Your task to perform on an android device: Do I have any events tomorrow? Image 0: 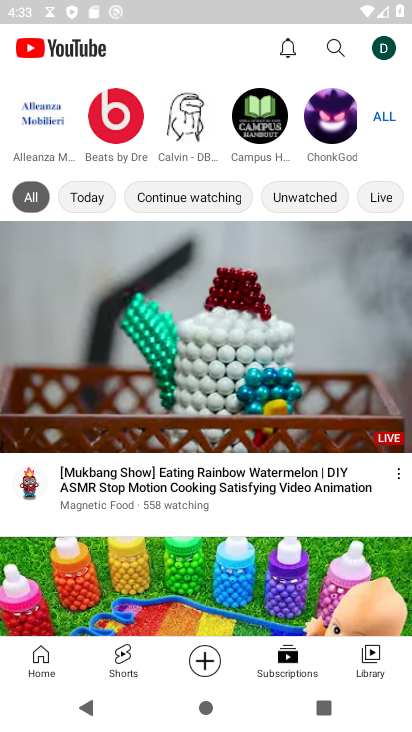
Step 0: press home button
Your task to perform on an android device: Do I have any events tomorrow? Image 1: 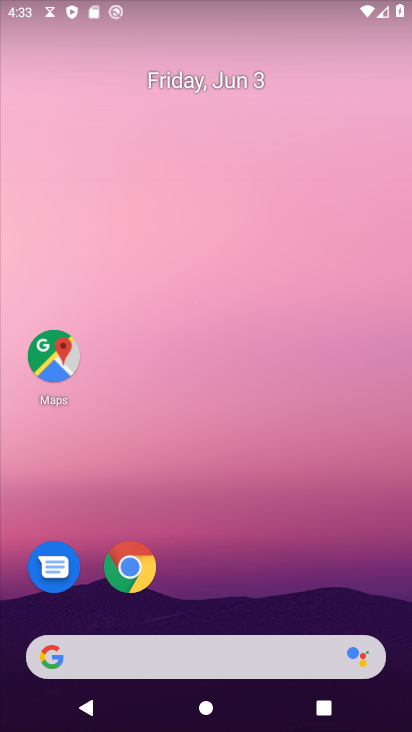
Step 1: drag from (228, 561) to (167, 51)
Your task to perform on an android device: Do I have any events tomorrow? Image 2: 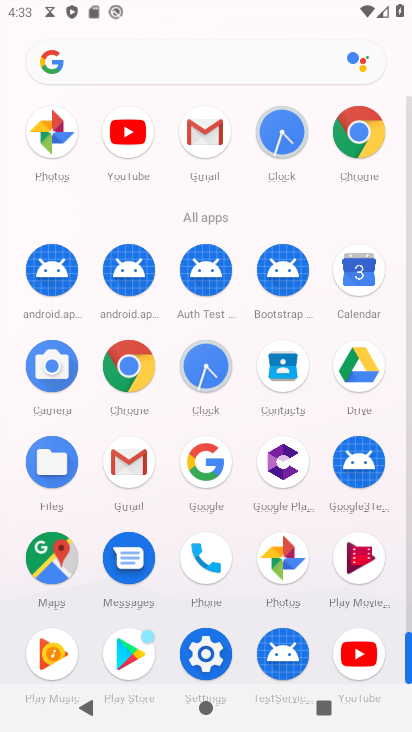
Step 2: click (355, 270)
Your task to perform on an android device: Do I have any events tomorrow? Image 3: 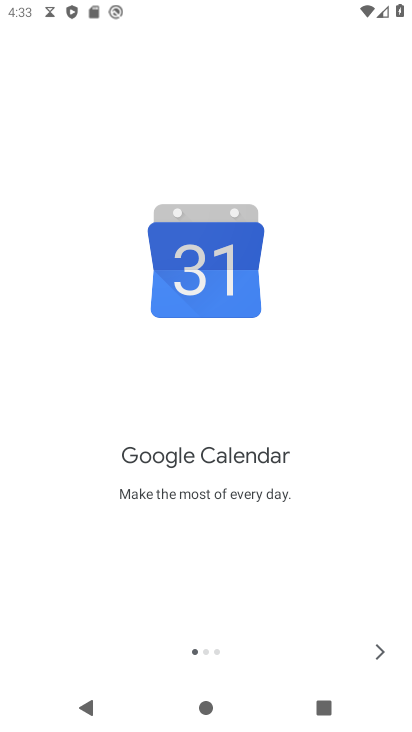
Step 3: click (378, 649)
Your task to perform on an android device: Do I have any events tomorrow? Image 4: 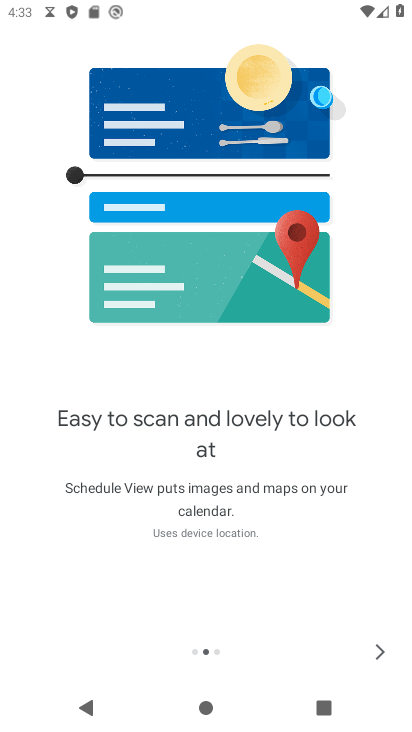
Step 4: click (378, 649)
Your task to perform on an android device: Do I have any events tomorrow? Image 5: 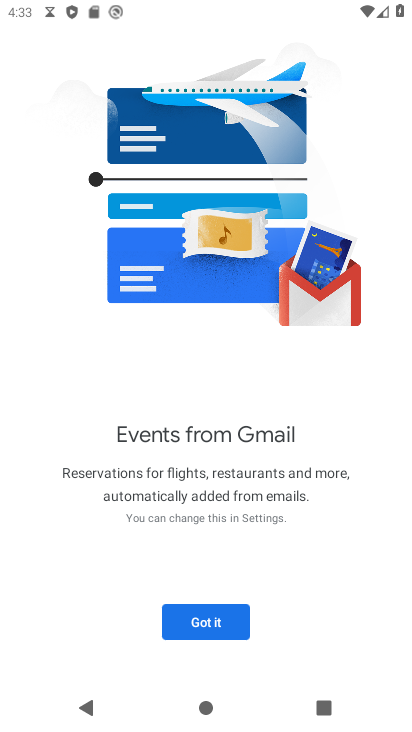
Step 5: click (208, 618)
Your task to perform on an android device: Do I have any events tomorrow? Image 6: 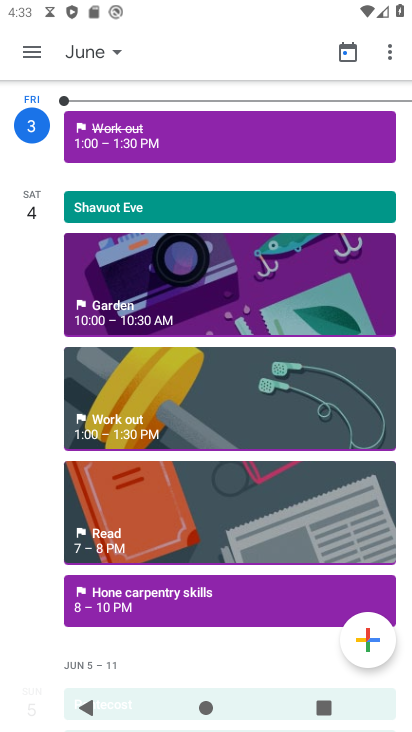
Step 6: click (129, 62)
Your task to perform on an android device: Do I have any events tomorrow? Image 7: 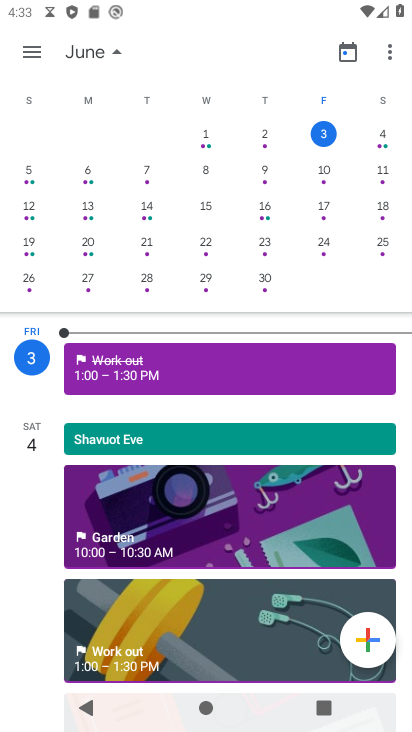
Step 7: click (397, 138)
Your task to perform on an android device: Do I have any events tomorrow? Image 8: 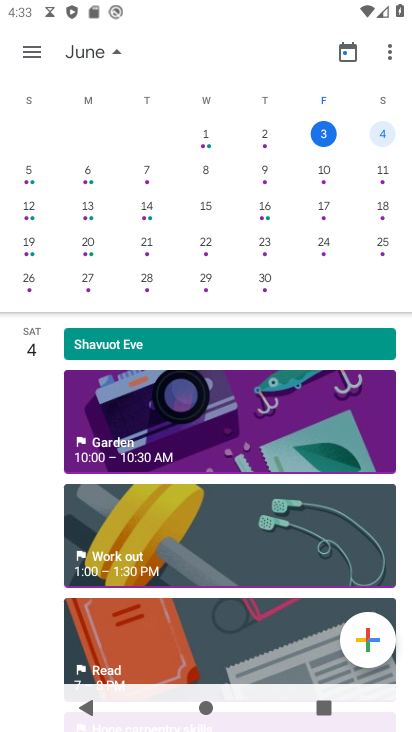
Step 8: click (32, 61)
Your task to perform on an android device: Do I have any events tomorrow? Image 9: 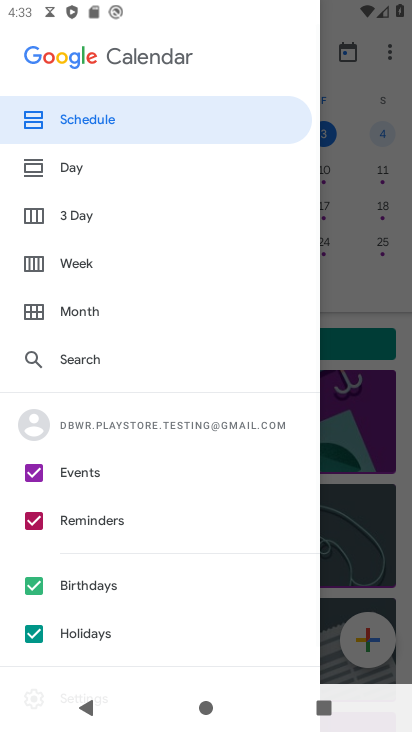
Step 9: click (87, 112)
Your task to perform on an android device: Do I have any events tomorrow? Image 10: 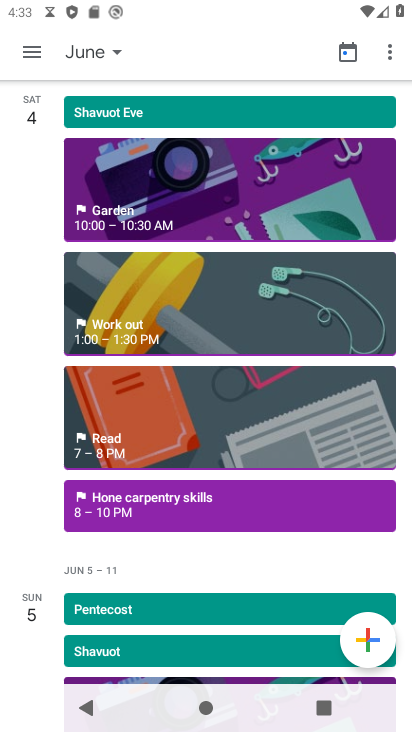
Step 10: task complete